Your task to perform on an android device: Open Reddit.com Image 0: 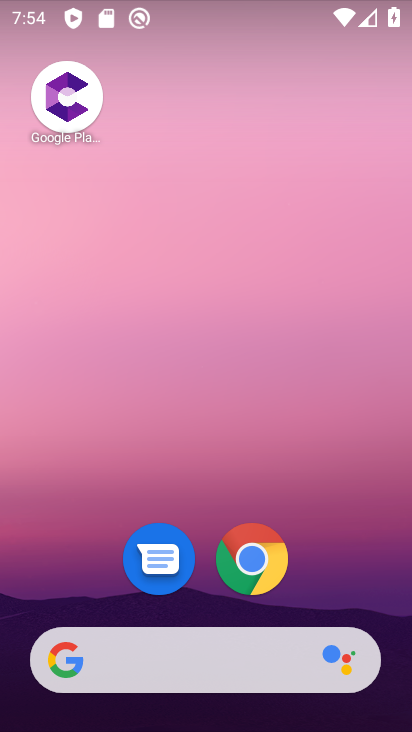
Step 0: click (266, 567)
Your task to perform on an android device: Open Reddit.com Image 1: 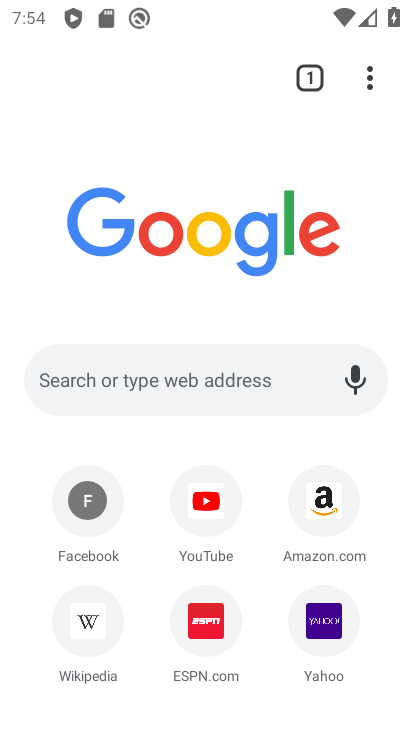
Step 1: click (169, 374)
Your task to perform on an android device: Open Reddit.com Image 2: 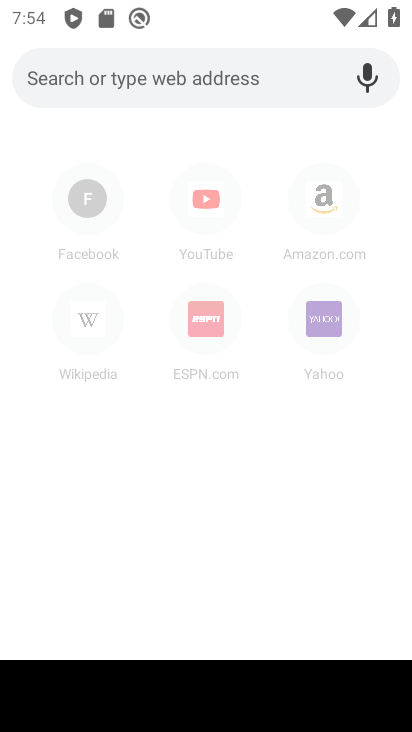
Step 2: type "reddit.com"
Your task to perform on an android device: Open Reddit.com Image 3: 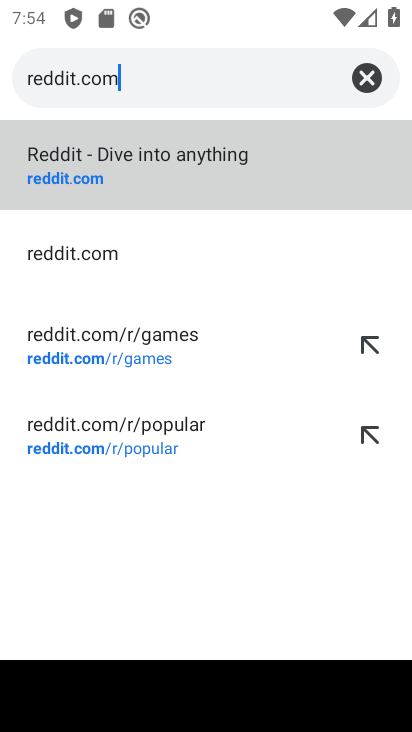
Step 3: click (217, 134)
Your task to perform on an android device: Open Reddit.com Image 4: 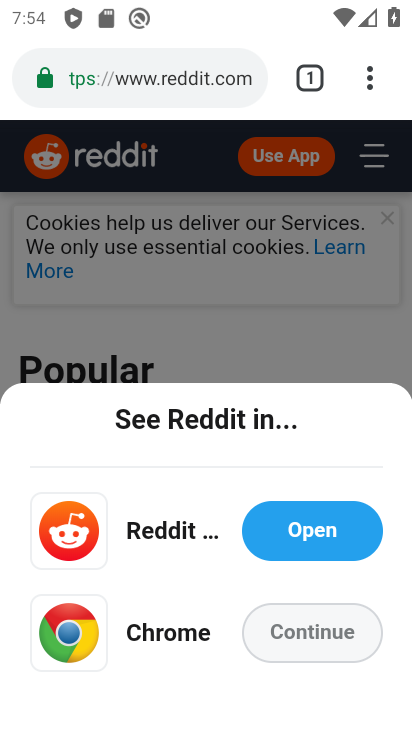
Step 4: task complete